Your task to perform on an android device: Is it going to rain tomorrow? Image 0: 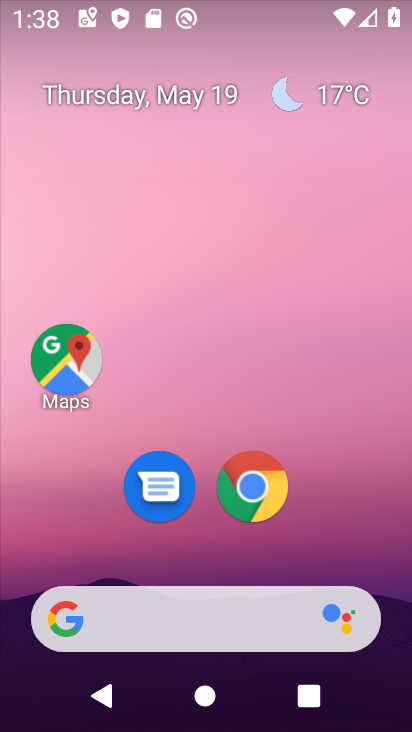
Step 0: click (340, 85)
Your task to perform on an android device: Is it going to rain tomorrow? Image 1: 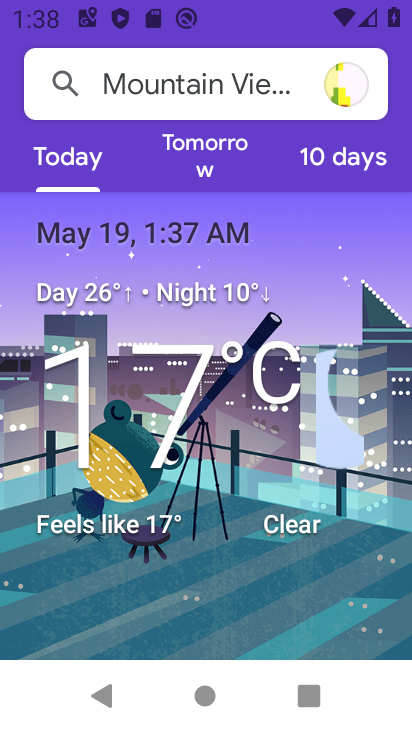
Step 1: click (210, 156)
Your task to perform on an android device: Is it going to rain tomorrow? Image 2: 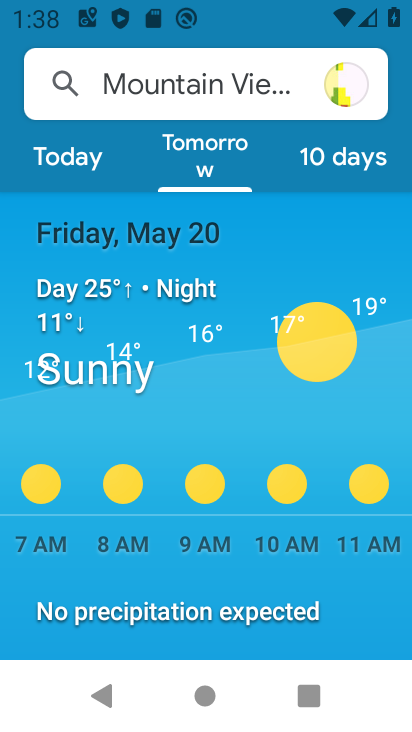
Step 2: task complete